Your task to perform on an android device: open app "LinkedIn" Image 0: 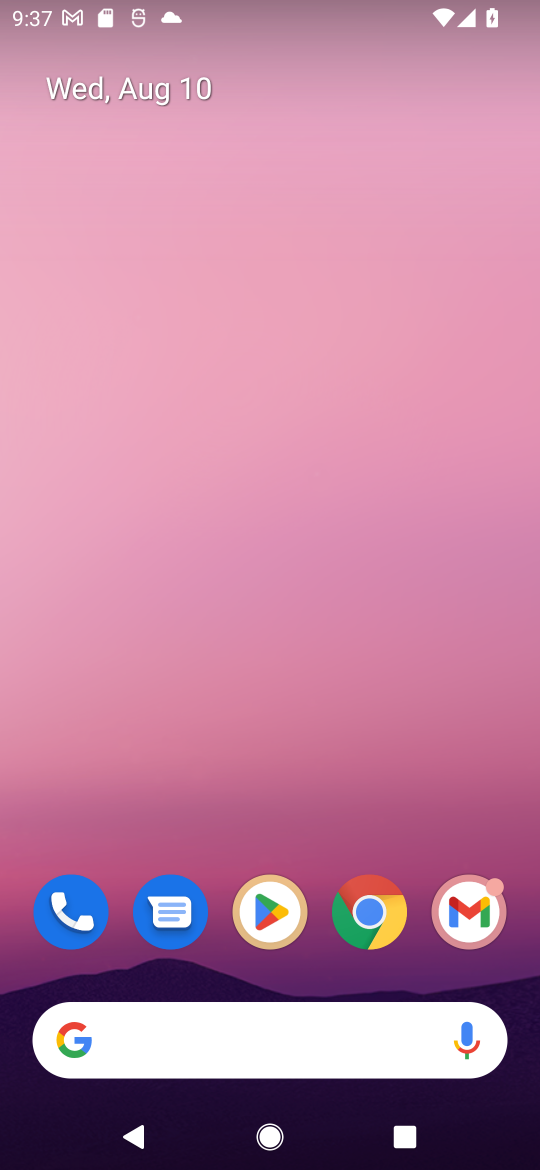
Step 0: drag from (525, 974) to (277, 9)
Your task to perform on an android device: open app "LinkedIn" Image 1: 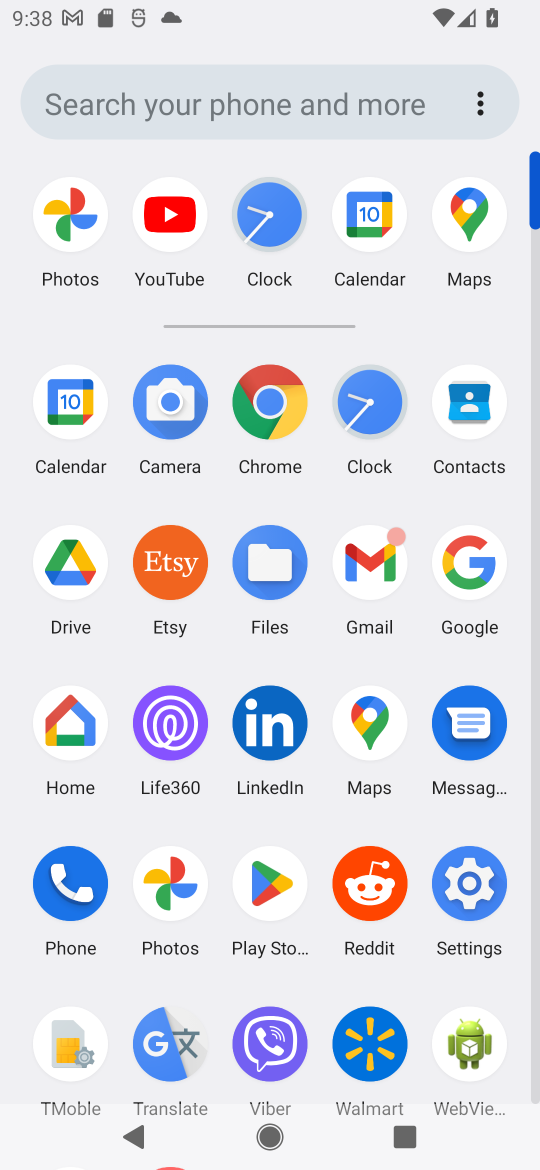
Step 1: click (277, 886)
Your task to perform on an android device: open app "LinkedIn" Image 2: 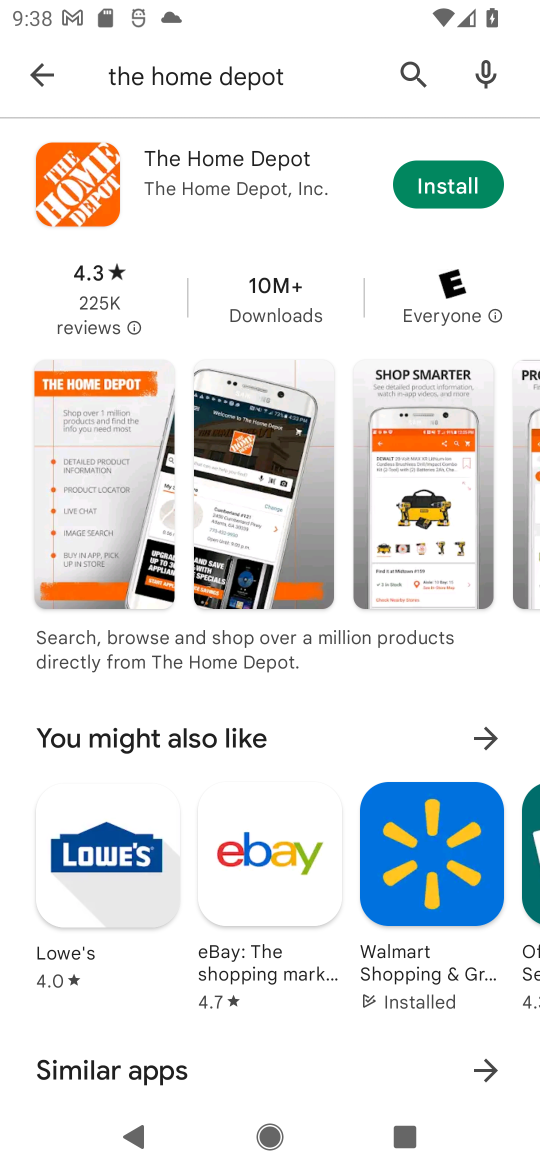
Step 2: press back button
Your task to perform on an android device: open app "LinkedIn" Image 3: 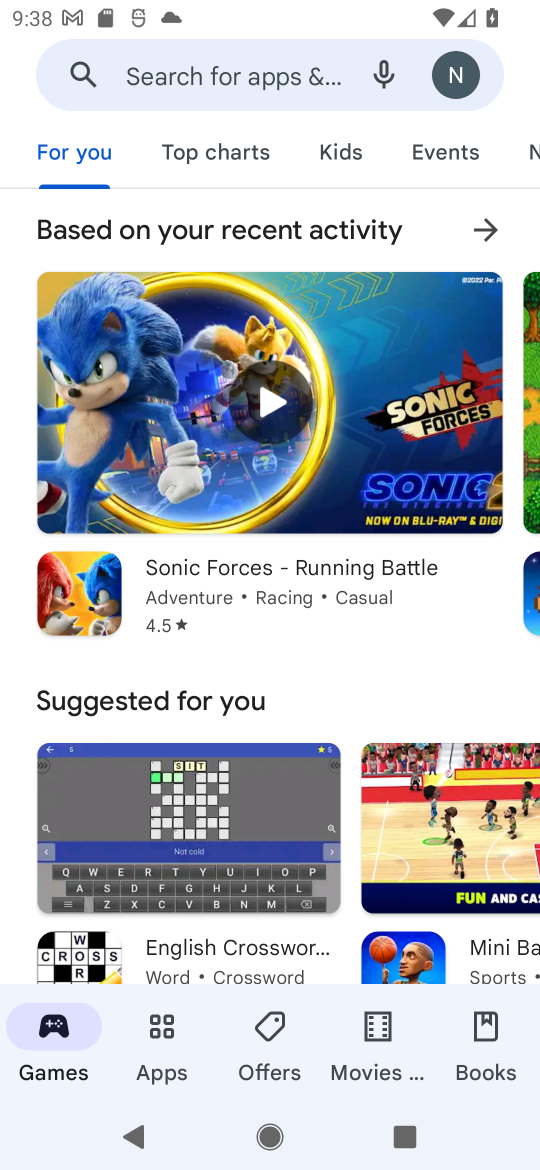
Step 3: click (239, 67)
Your task to perform on an android device: open app "LinkedIn" Image 4: 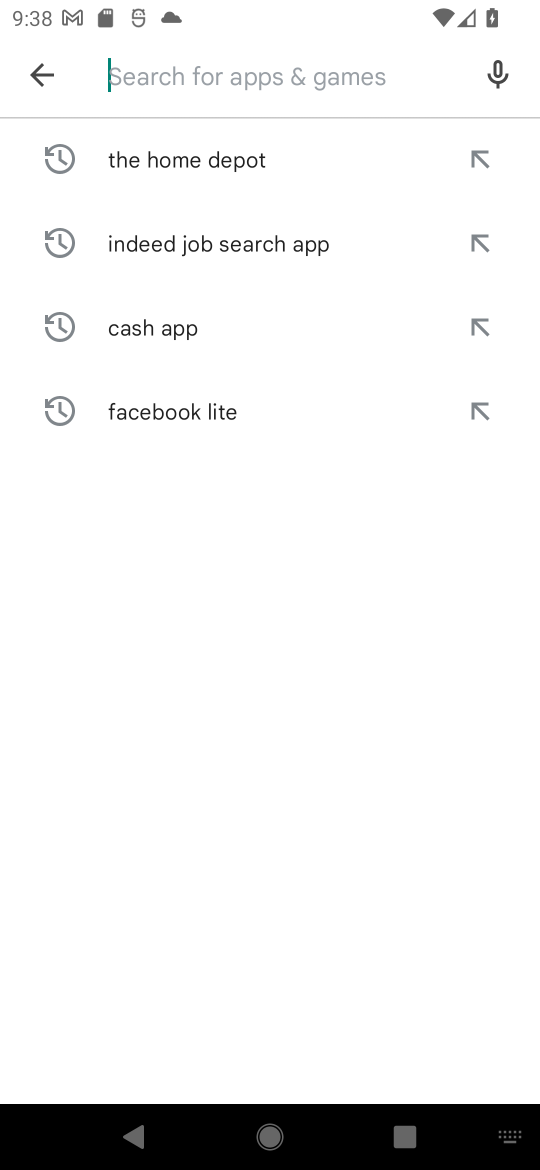
Step 4: type "LinkedIn"
Your task to perform on an android device: open app "LinkedIn" Image 5: 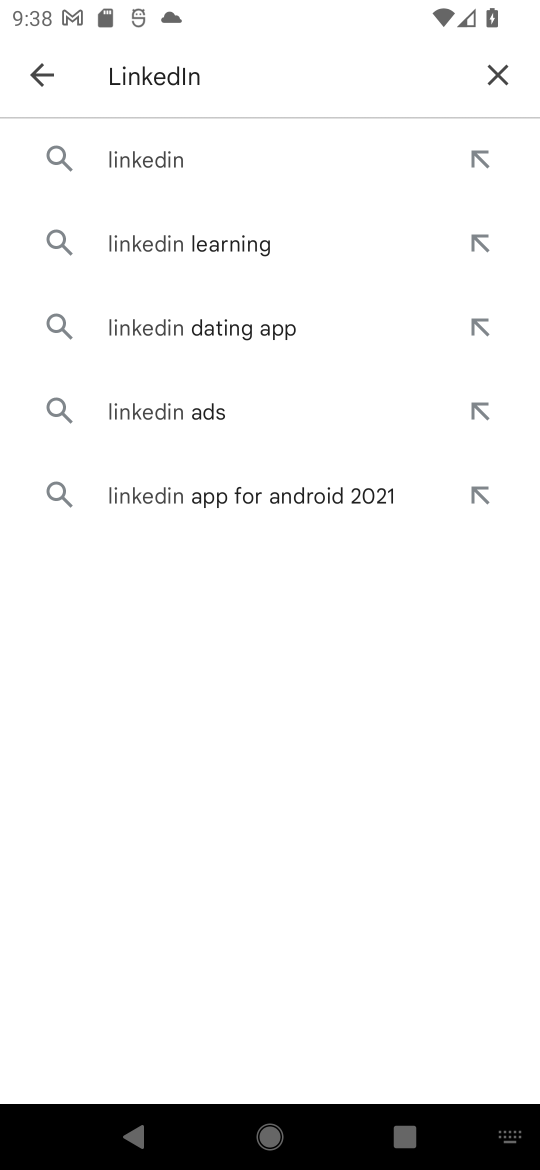
Step 5: click (163, 179)
Your task to perform on an android device: open app "LinkedIn" Image 6: 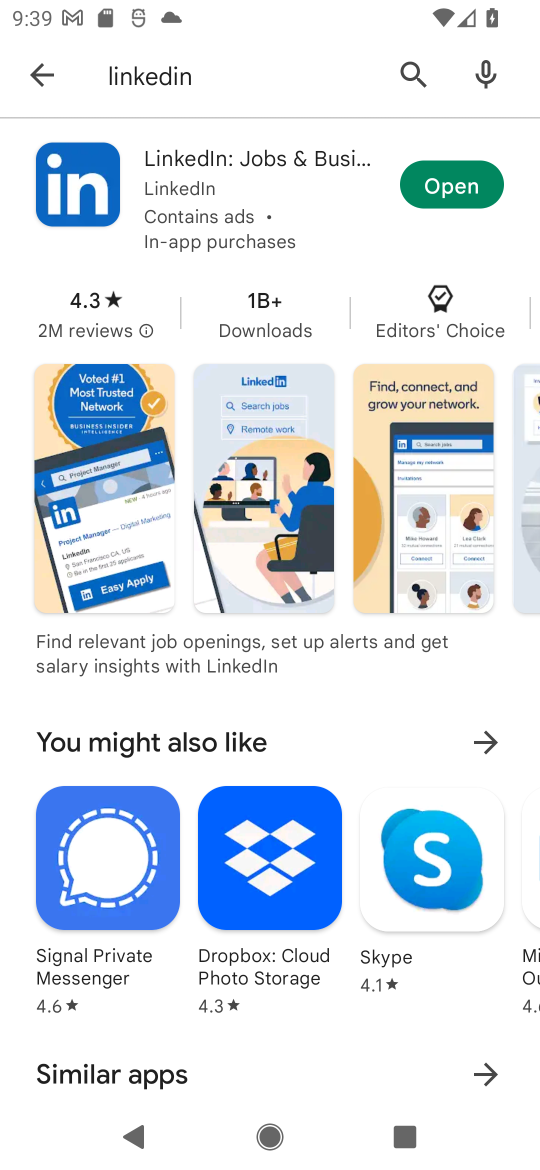
Step 6: click (474, 183)
Your task to perform on an android device: open app "LinkedIn" Image 7: 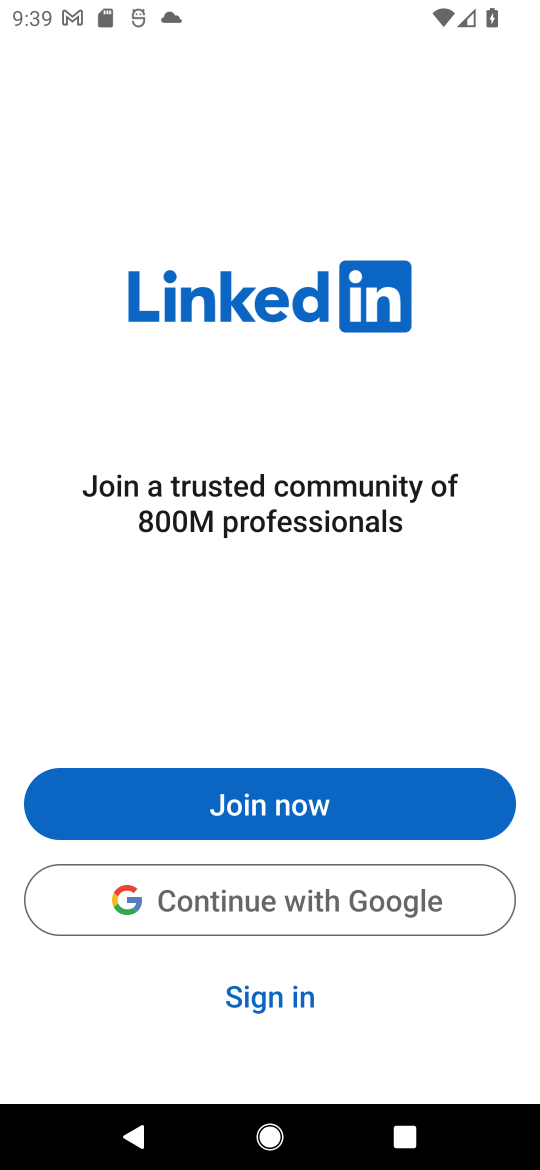
Step 7: task complete